Your task to perform on an android device: turn on improve location accuracy Image 0: 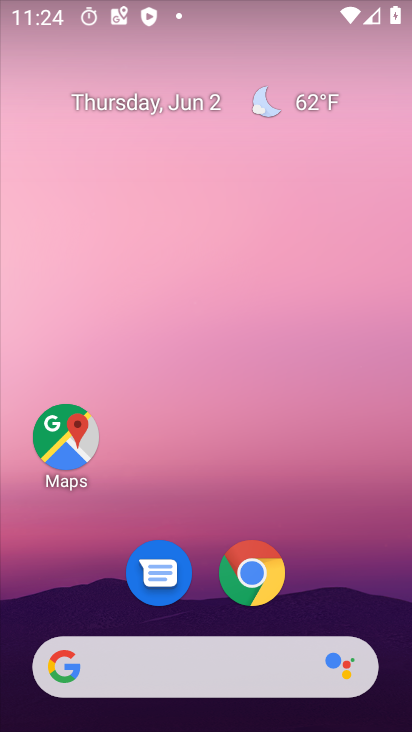
Step 0: drag from (320, 659) to (412, 24)
Your task to perform on an android device: turn on improve location accuracy Image 1: 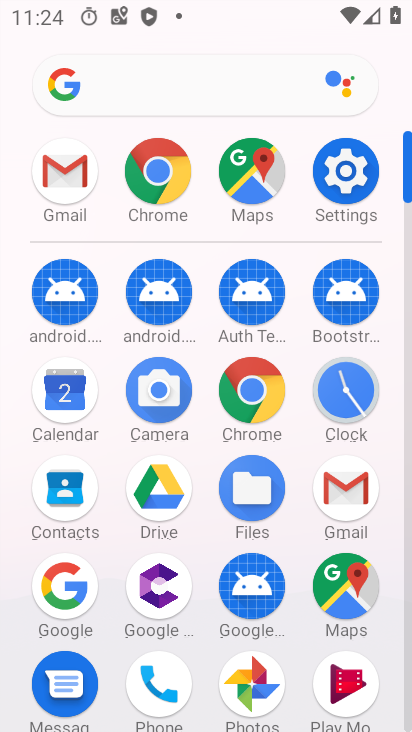
Step 1: click (362, 164)
Your task to perform on an android device: turn on improve location accuracy Image 2: 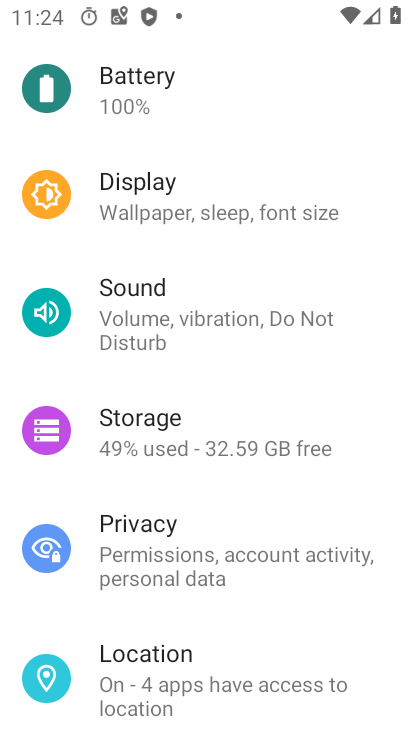
Step 2: click (201, 664)
Your task to perform on an android device: turn on improve location accuracy Image 3: 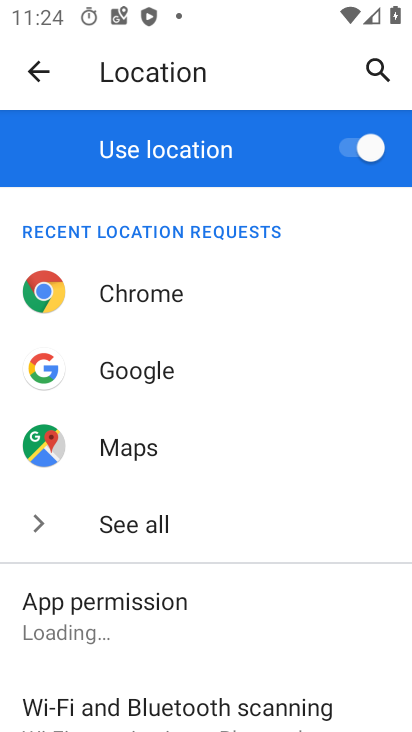
Step 3: drag from (199, 658) to (250, 287)
Your task to perform on an android device: turn on improve location accuracy Image 4: 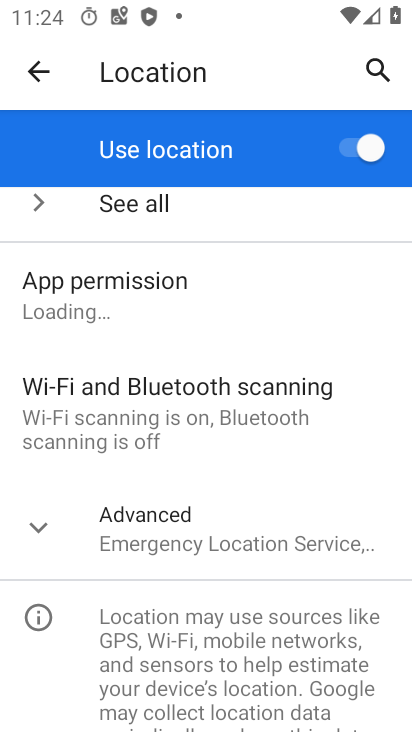
Step 4: click (204, 524)
Your task to perform on an android device: turn on improve location accuracy Image 5: 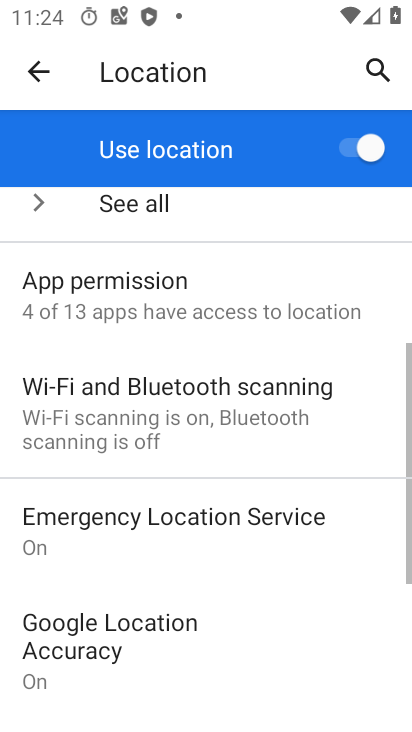
Step 5: drag from (191, 622) to (249, 414)
Your task to perform on an android device: turn on improve location accuracy Image 6: 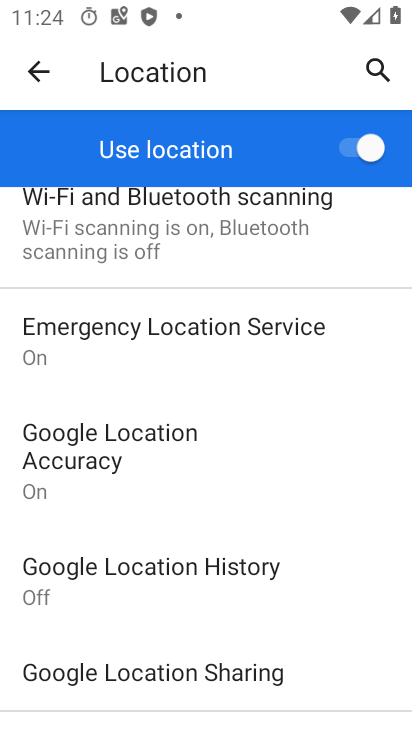
Step 6: click (174, 490)
Your task to perform on an android device: turn on improve location accuracy Image 7: 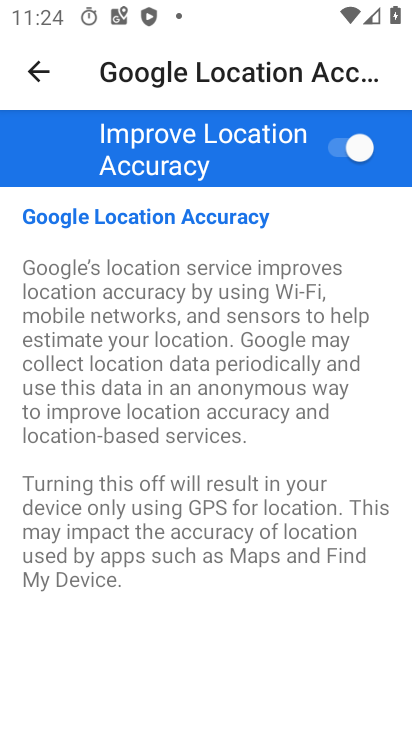
Step 7: task complete